Your task to perform on an android device: Open Chrome and go to settings Image 0: 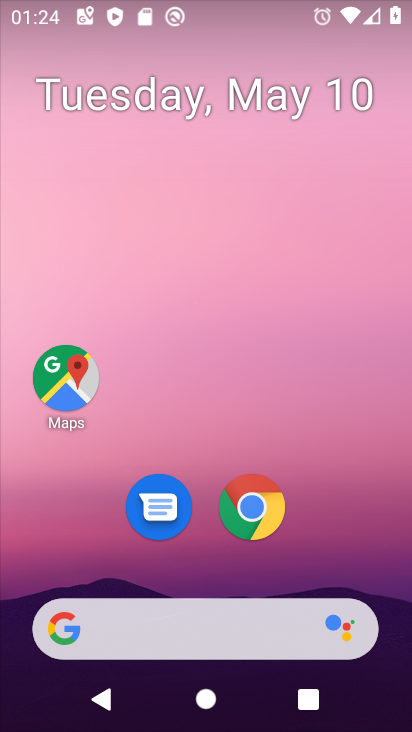
Step 0: click (247, 507)
Your task to perform on an android device: Open Chrome and go to settings Image 1: 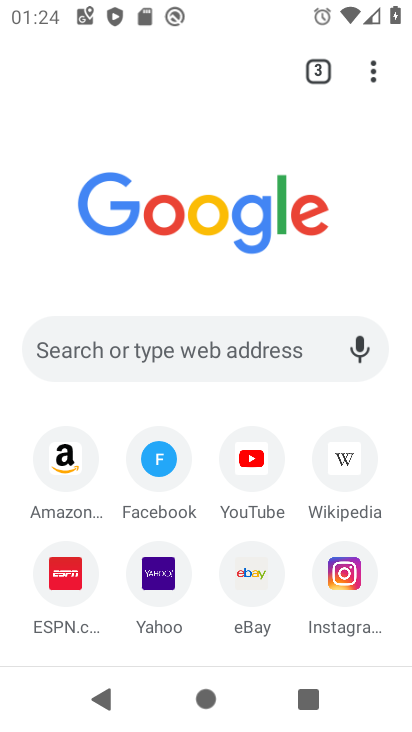
Step 1: click (369, 74)
Your task to perform on an android device: Open Chrome and go to settings Image 2: 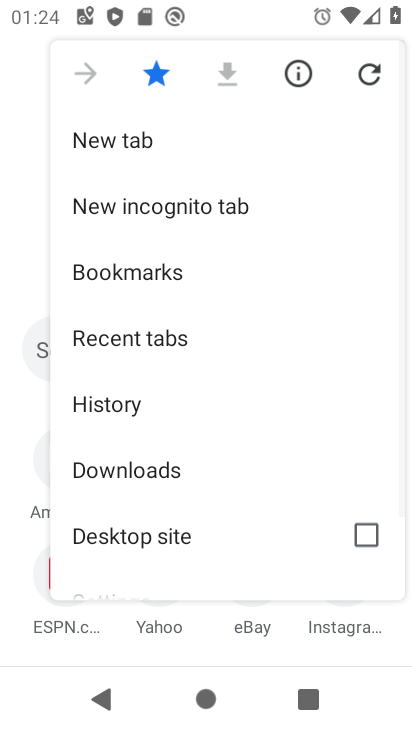
Step 2: drag from (191, 535) to (183, 201)
Your task to perform on an android device: Open Chrome and go to settings Image 3: 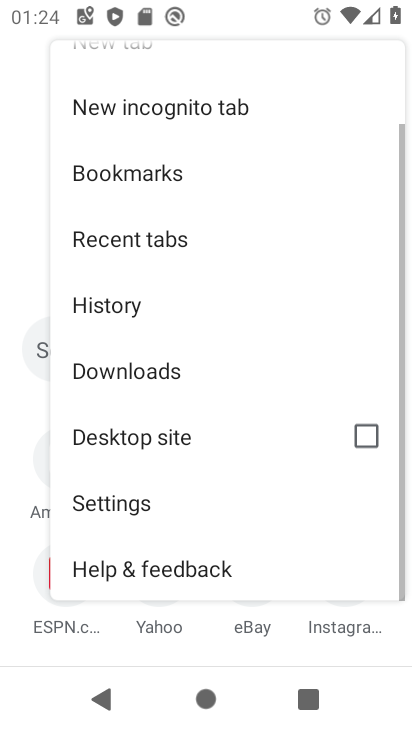
Step 3: click (136, 502)
Your task to perform on an android device: Open Chrome and go to settings Image 4: 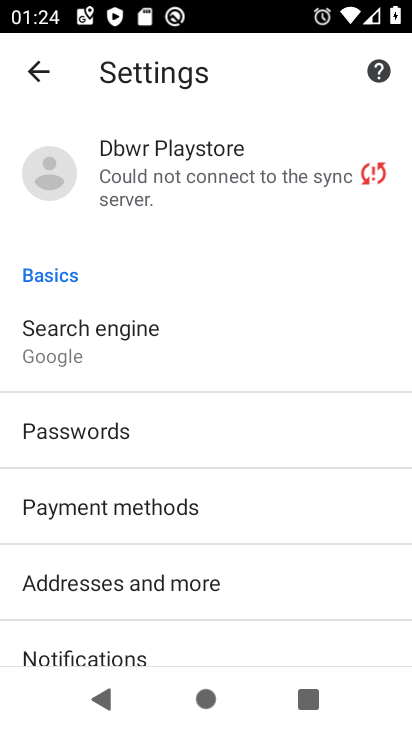
Step 4: drag from (225, 639) to (249, 290)
Your task to perform on an android device: Open Chrome and go to settings Image 5: 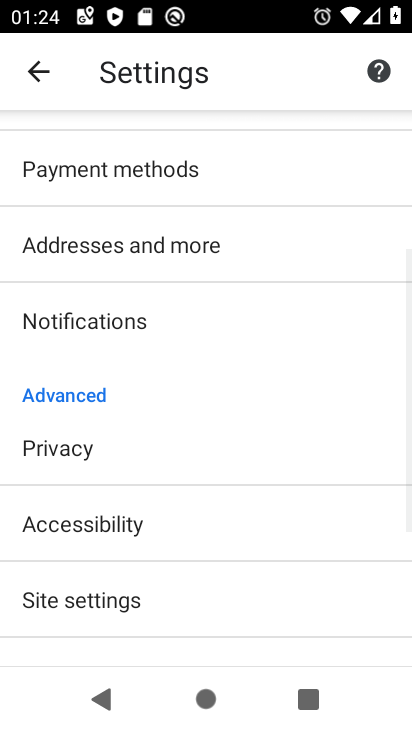
Step 5: click (93, 598)
Your task to perform on an android device: Open Chrome and go to settings Image 6: 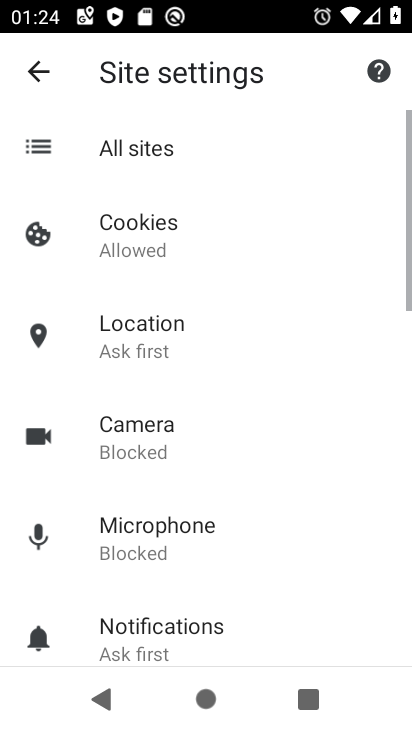
Step 6: drag from (247, 607) to (302, 187)
Your task to perform on an android device: Open Chrome and go to settings Image 7: 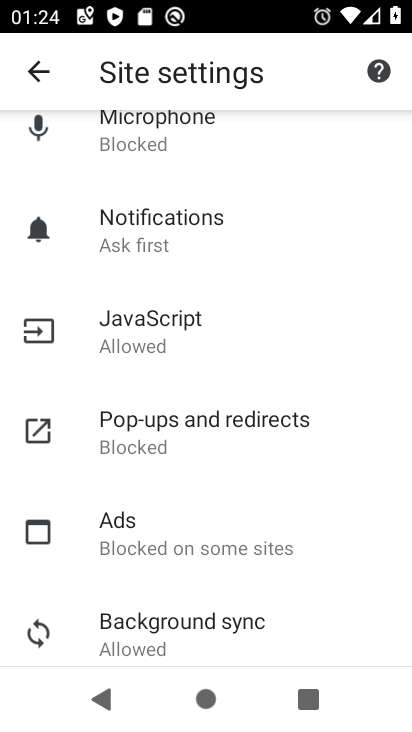
Step 7: click (200, 681)
Your task to perform on an android device: Open Chrome and go to settings Image 8: 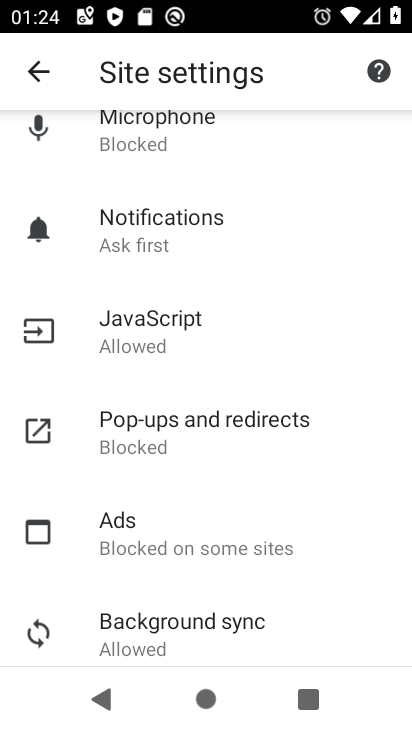
Step 8: task complete